Your task to perform on an android device: Open Google Chrome Image 0: 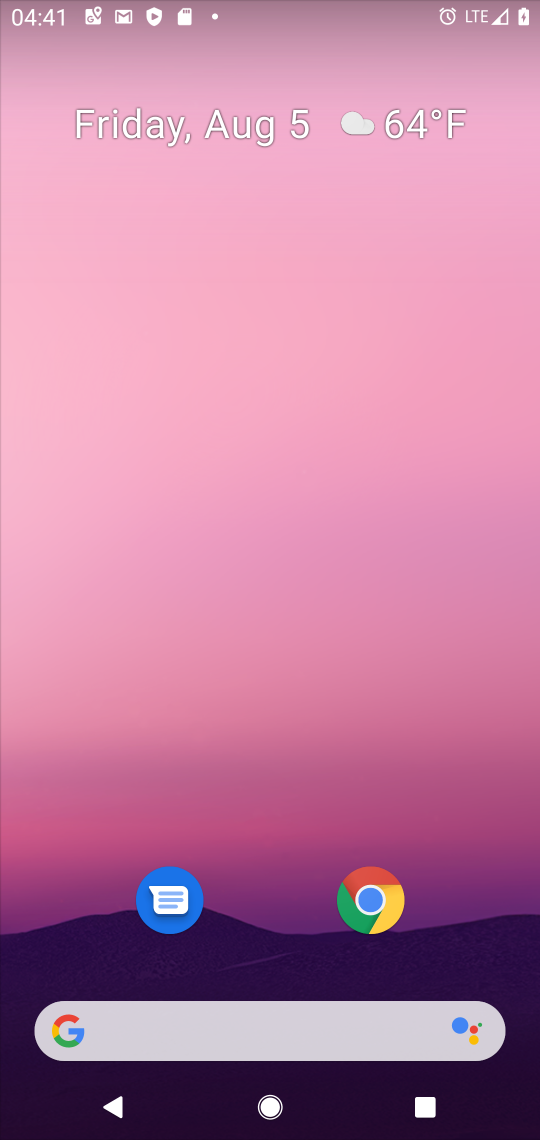
Step 0: click (362, 909)
Your task to perform on an android device: Open Google Chrome Image 1: 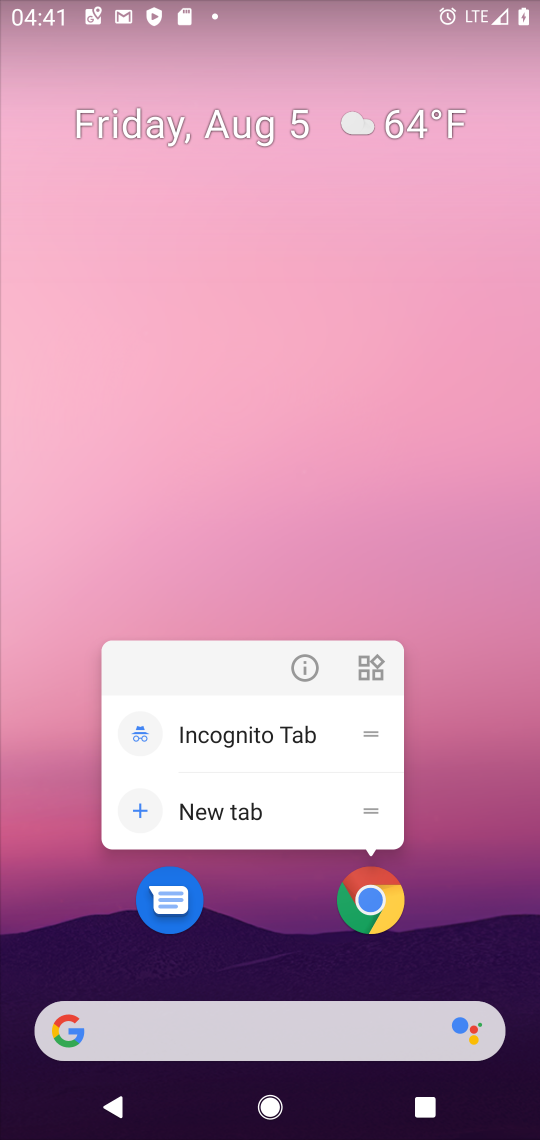
Step 1: click (369, 915)
Your task to perform on an android device: Open Google Chrome Image 2: 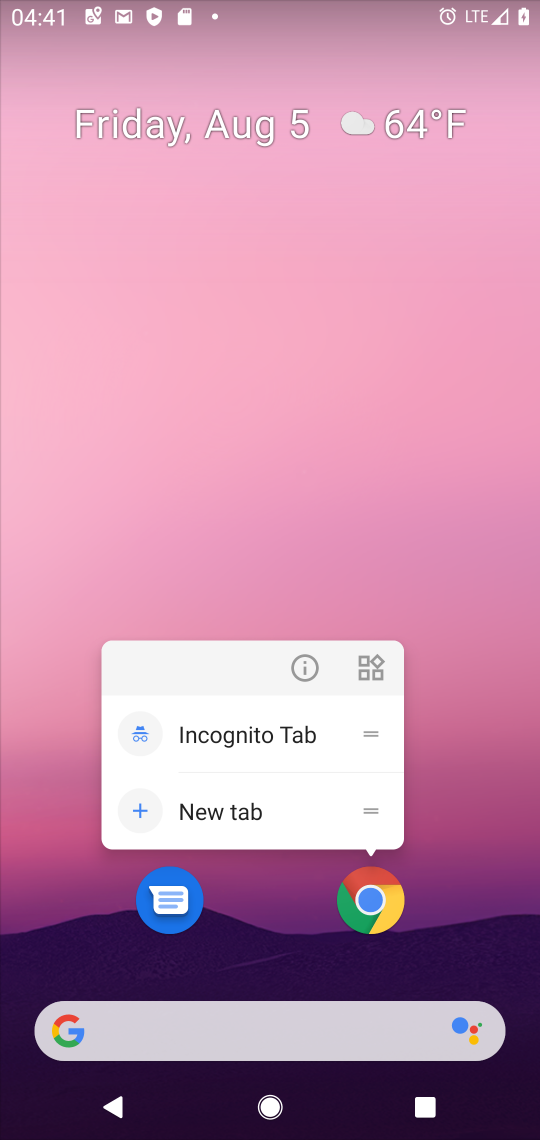
Step 2: click (377, 900)
Your task to perform on an android device: Open Google Chrome Image 3: 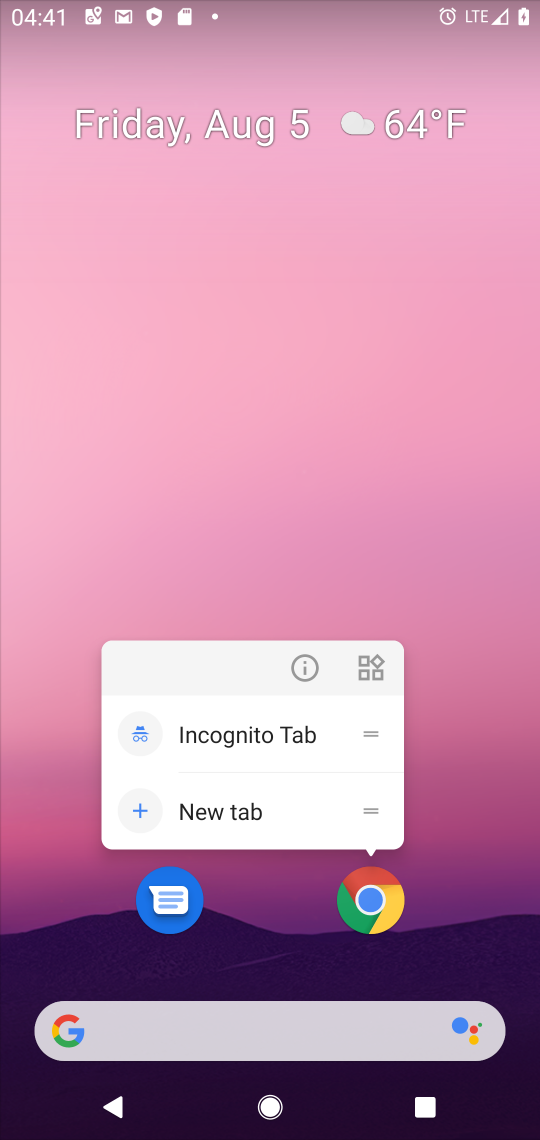
Step 3: click (374, 899)
Your task to perform on an android device: Open Google Chrome Image 4: 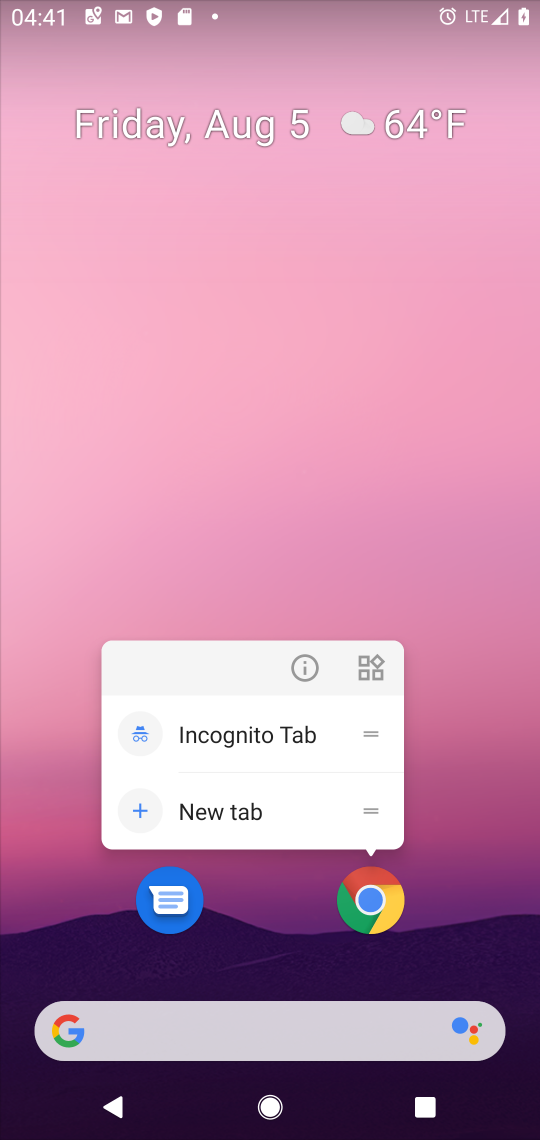
Step 4: click (374, 899)
Your task to perform on an android device: Open Google Chrome Image 5: 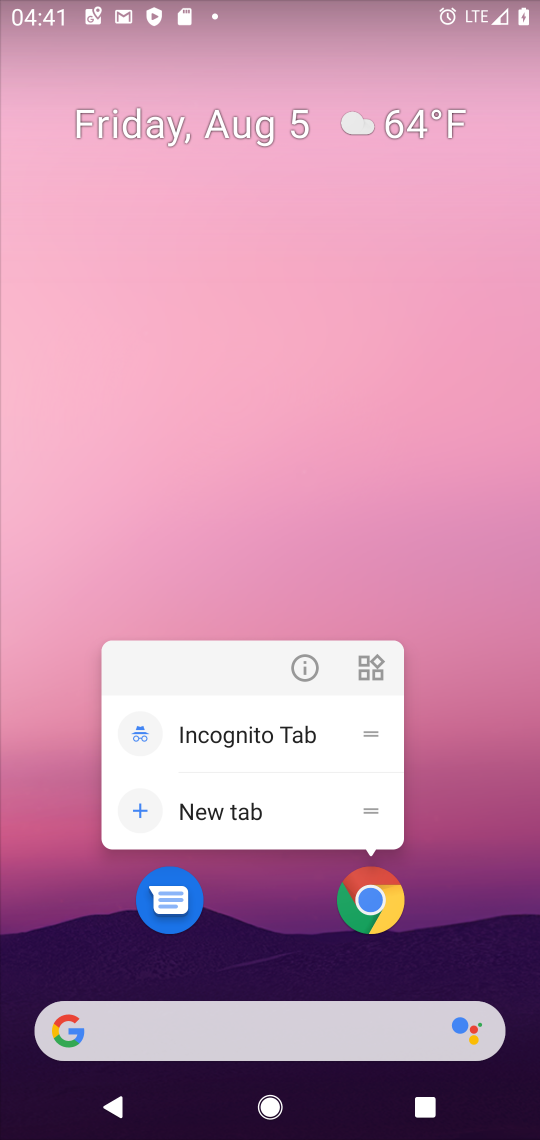
Step 5: click (370, 915)
Your task to perform on an android device: Open Google Chrome Image 6: 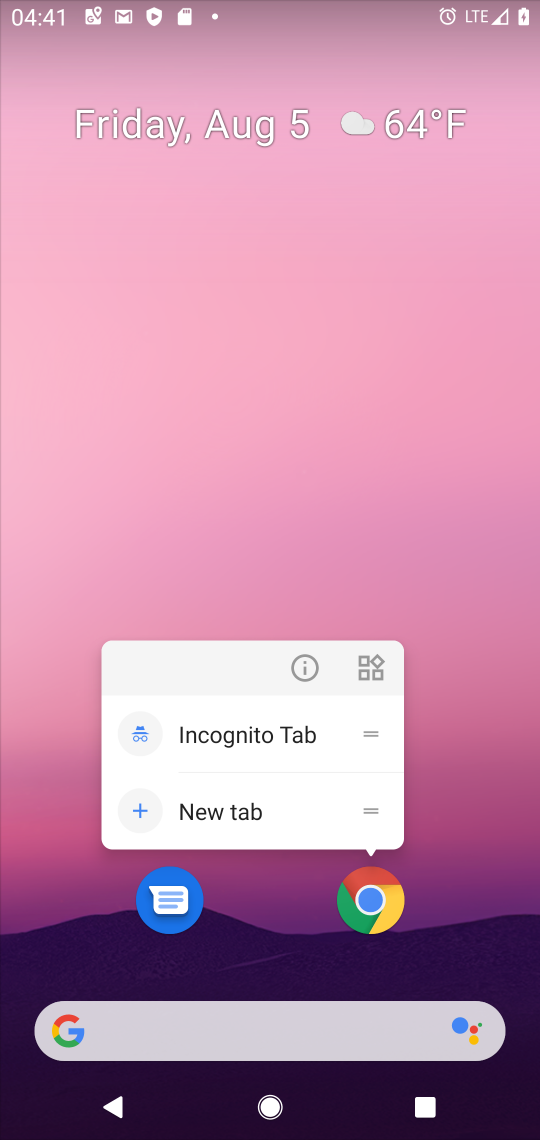
Step 6: click (383, 908)
Your task to perform on an android device: Open Google Chrome Image 7: 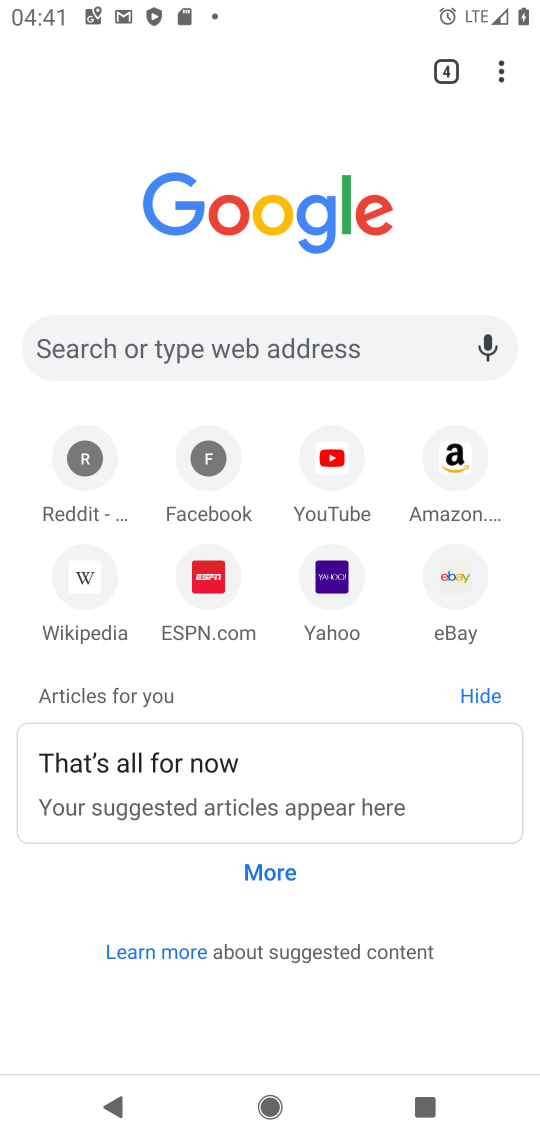
Step 7: task complete